Your task to perform on an android device: Open Google Chrome Image 0: 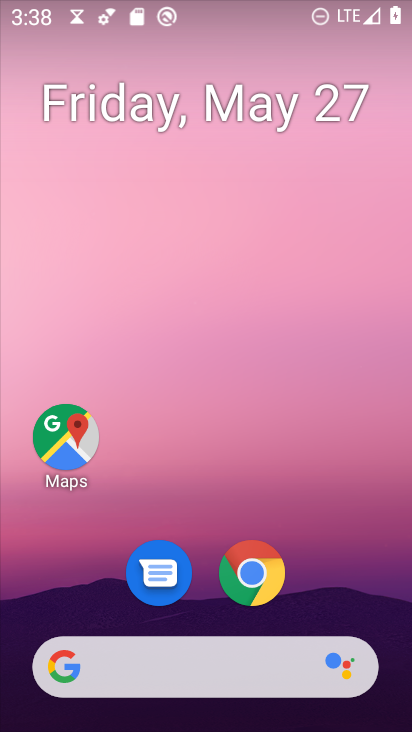
Step 0: click (253, 576)
Your task to perform on an android device: Open Google Chrome Image 1: 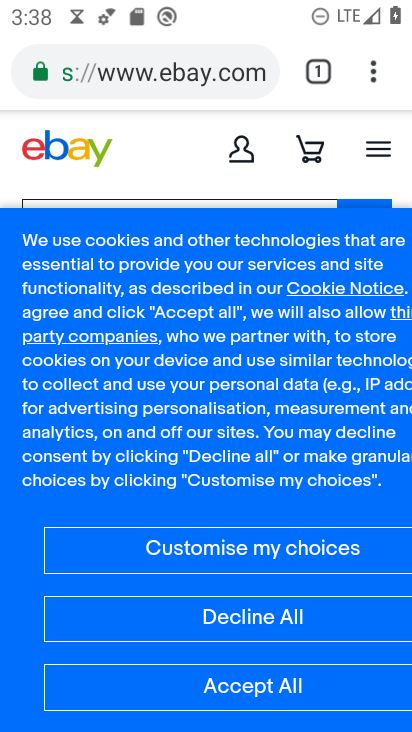
Step 1: task complete